Your task to perform on an android device: delete browsing data in the chrome app Image 0: 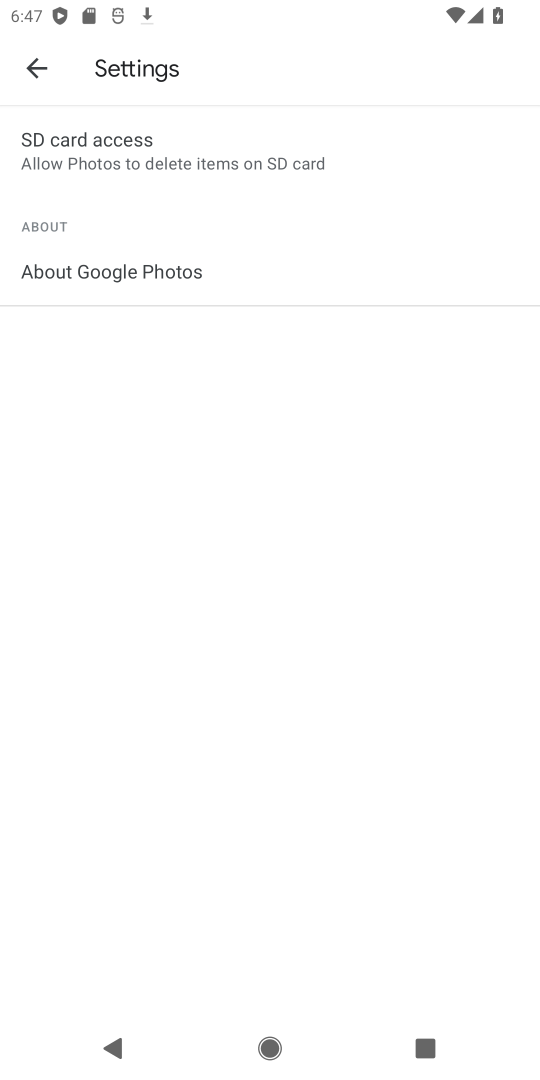
Step 0: press home button
Your task to perform on an android device: delete browsing data in the chrome app Image 1: 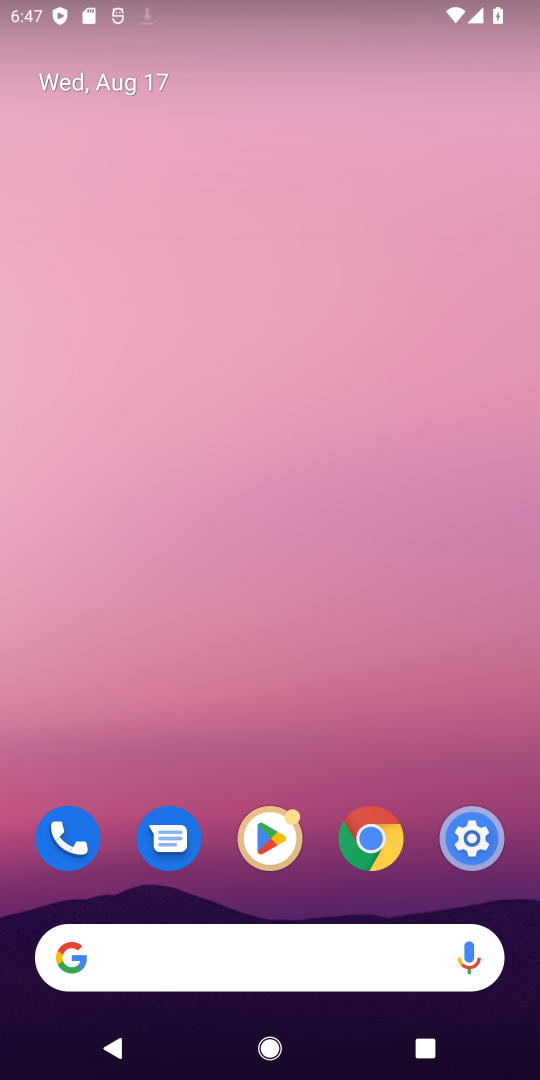
Step 1: drag from (380, 934) to (484, 249)
Your task to perform on an android device: delete browsing data in the chrome app Image 2: 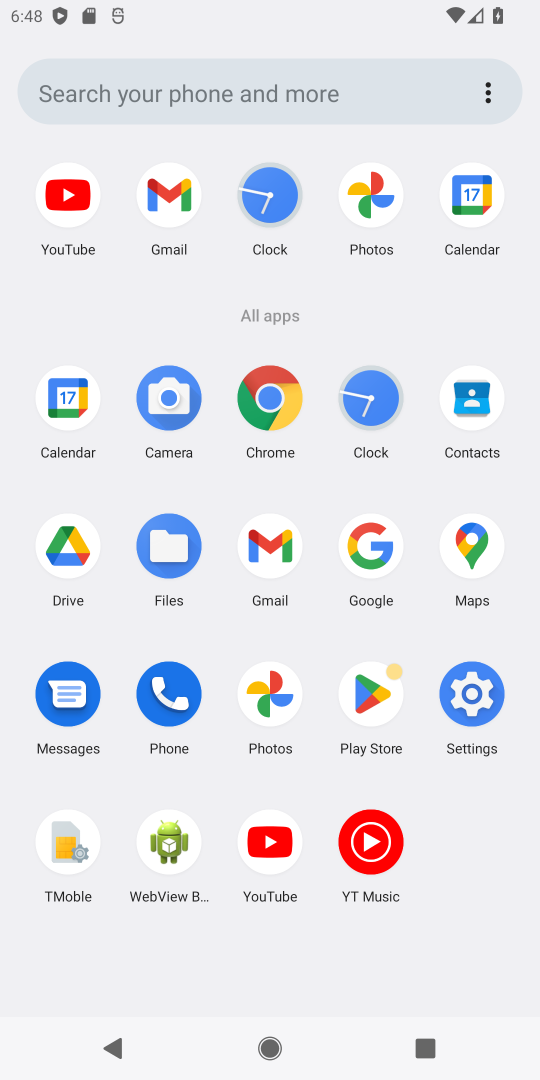
Step 2: click (269, 428)
Your task to perform on an android device: delete browsing data in the chrome app Image 3: 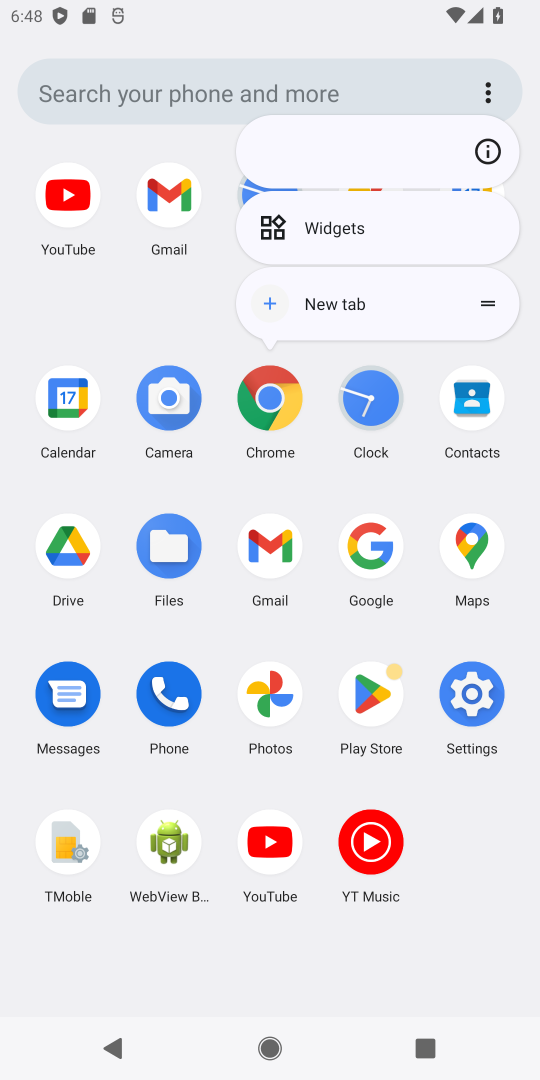
Step 3: click (284, 458)
Your task to perform on an android device: delete browsing data in the chrome app Image 4: 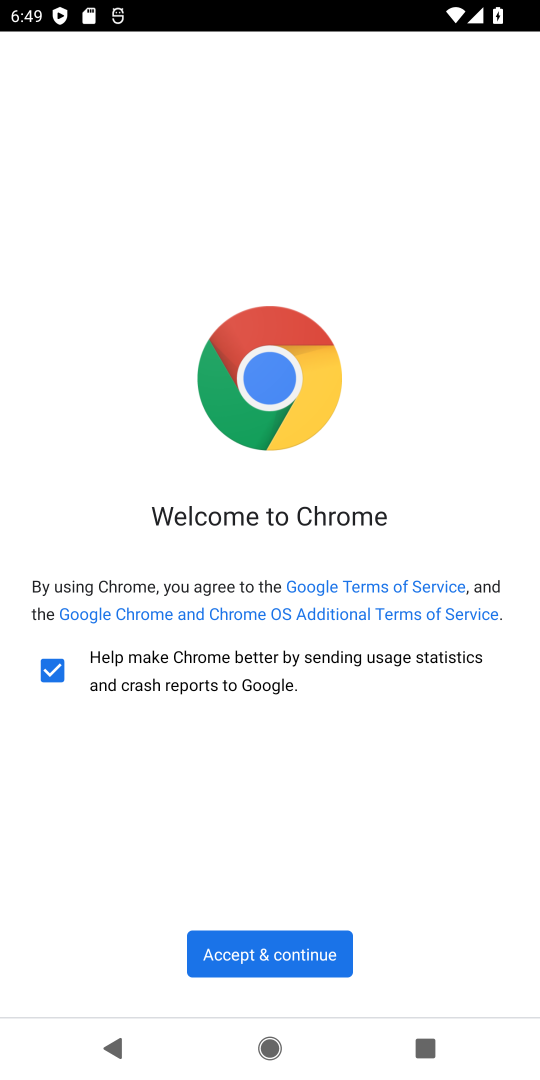
Step 4: click (228, 954)
Your task to perform on an android device: delete browsing data in the chrome app Image 5: 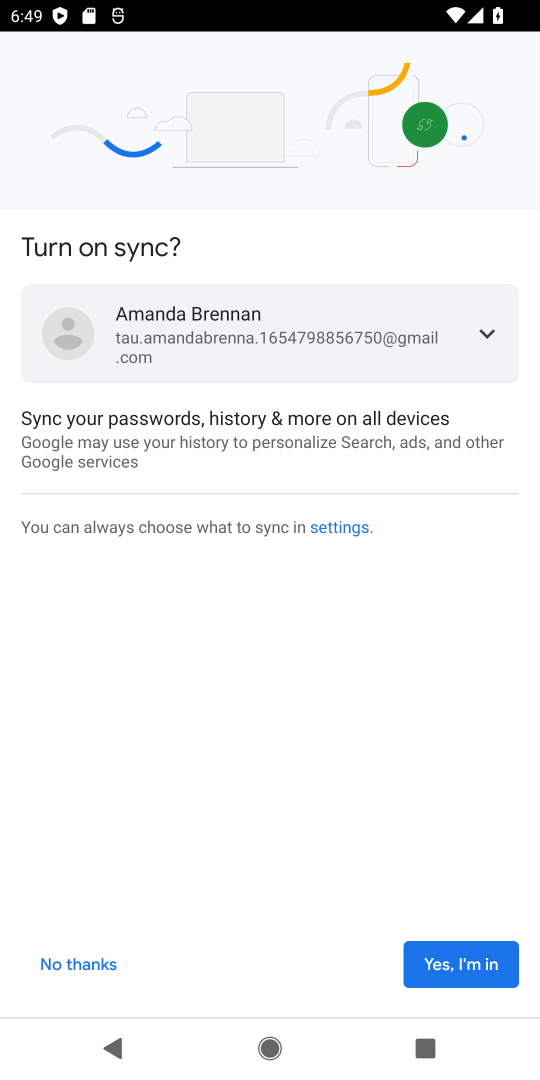
Step 5: click (459, 951)
Your task to perform on an android device: delete browsing data in the chrome app Image 6: 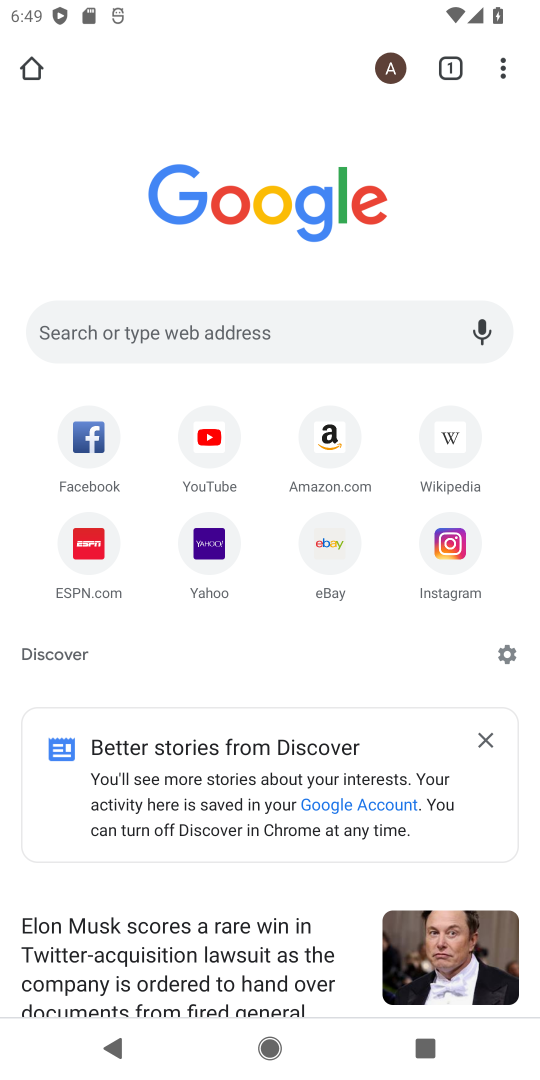
Step 6: click (506, 72)
Your task to perform on an android device: delete browsing data in the chrome app Image 7: 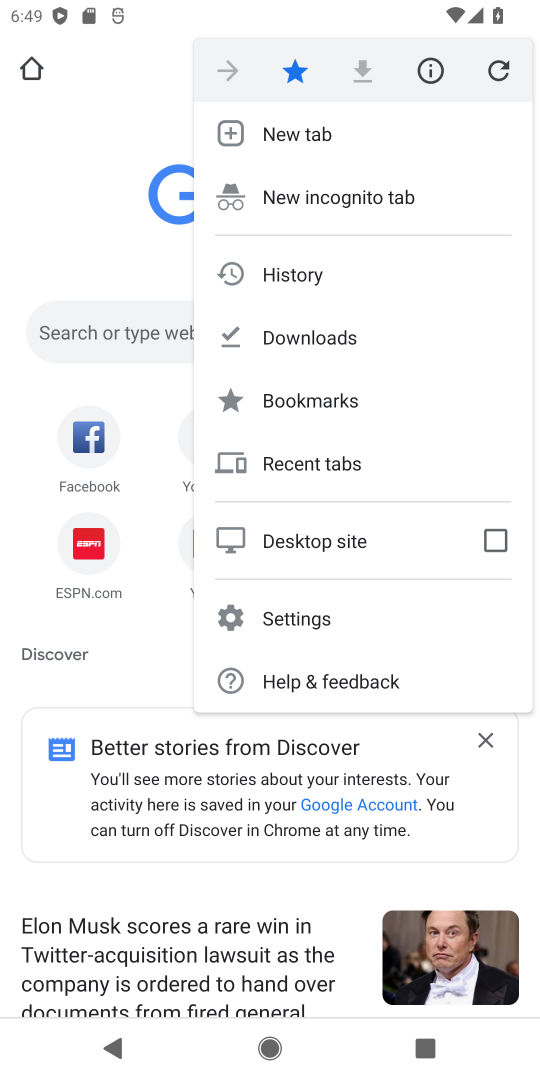
Step 7: click (317, 277)
Your task to perform on an android device: delete browsing data in the chrome app Image 8: 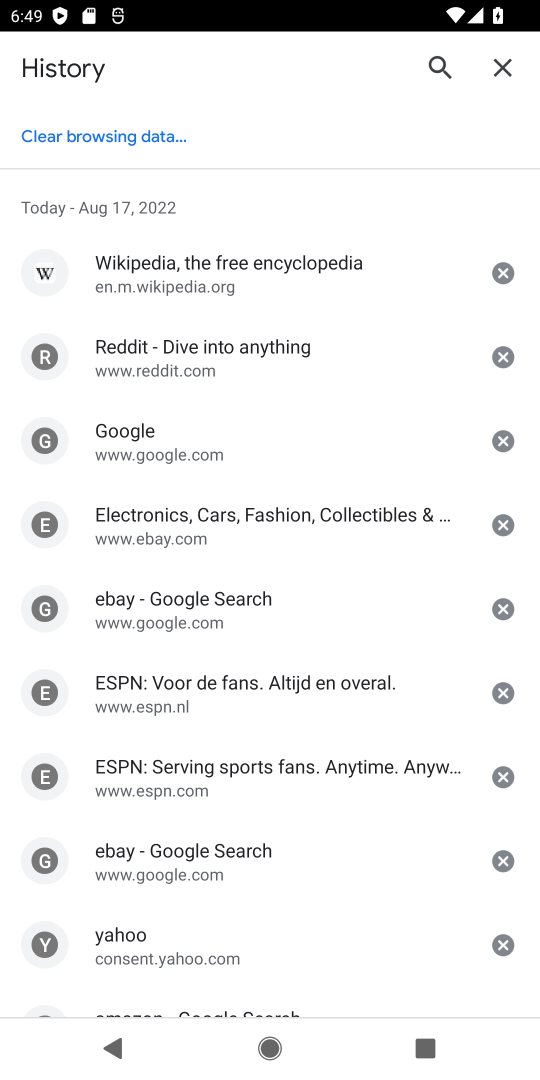
Step 8: click (141, 147)
Your task to perform on an android device: delete browsing data in the chrome app Image 9: 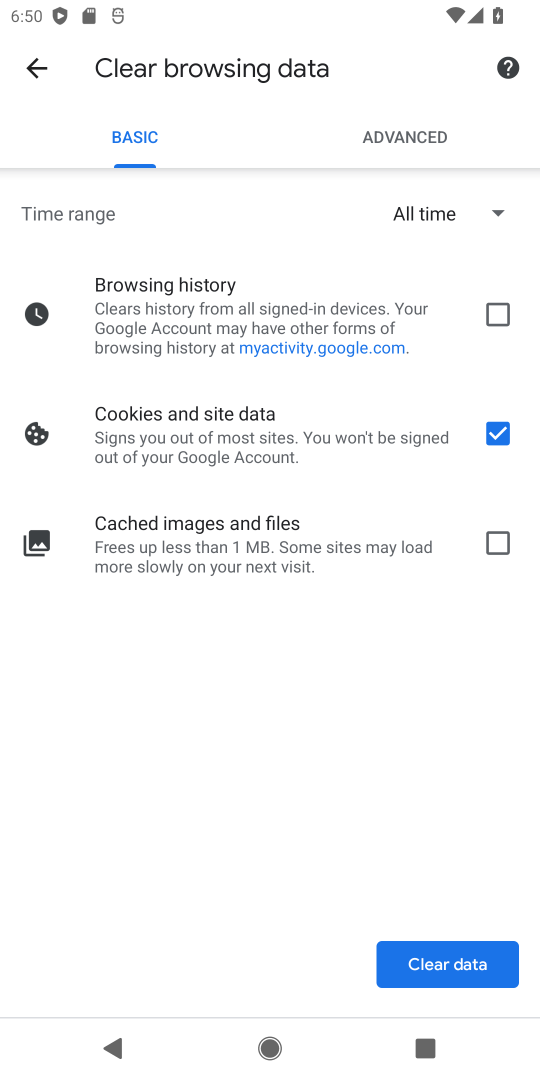
Step 9: click (496, 318)
Your task to perform on an android device: delete browsing data in the chrome app Image 10: 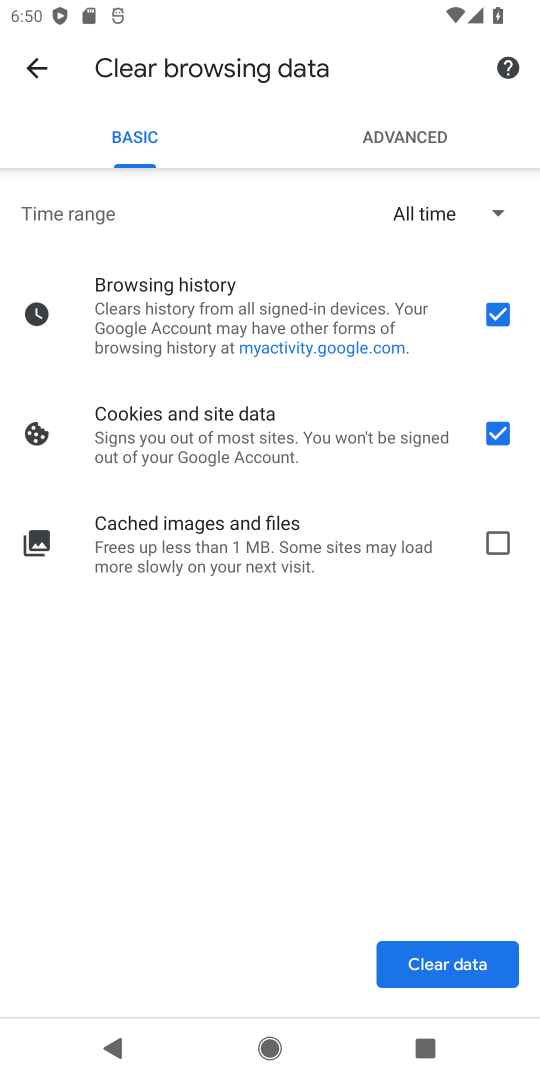
Step 10: click (505, 430)
Your task to perform on an android device: delete browsing data in the chrome app Image 11: 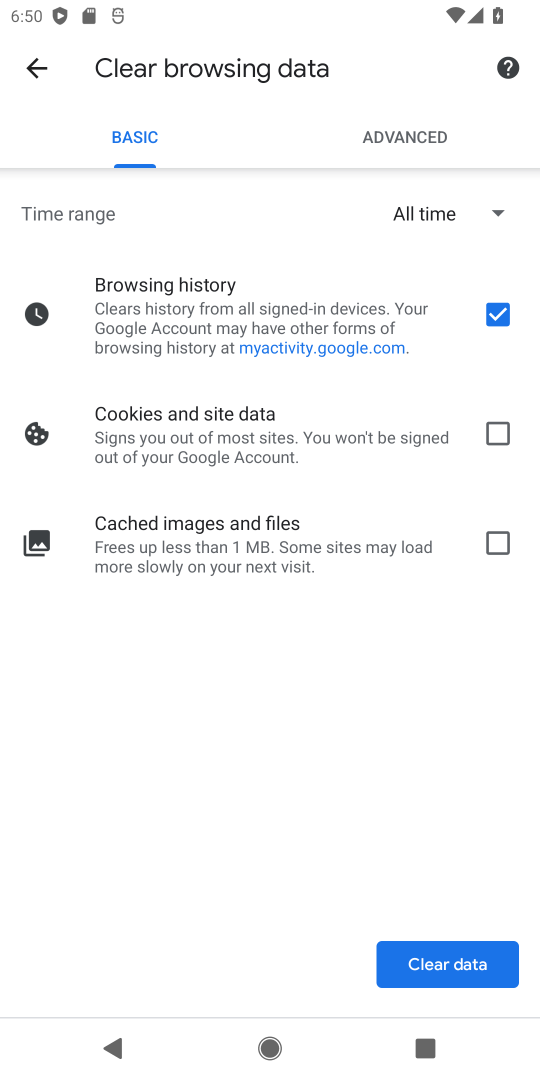
Step 11: click (465, 964)
Your task to perform on an android device: delete browsing data in the chrome app Image 12: 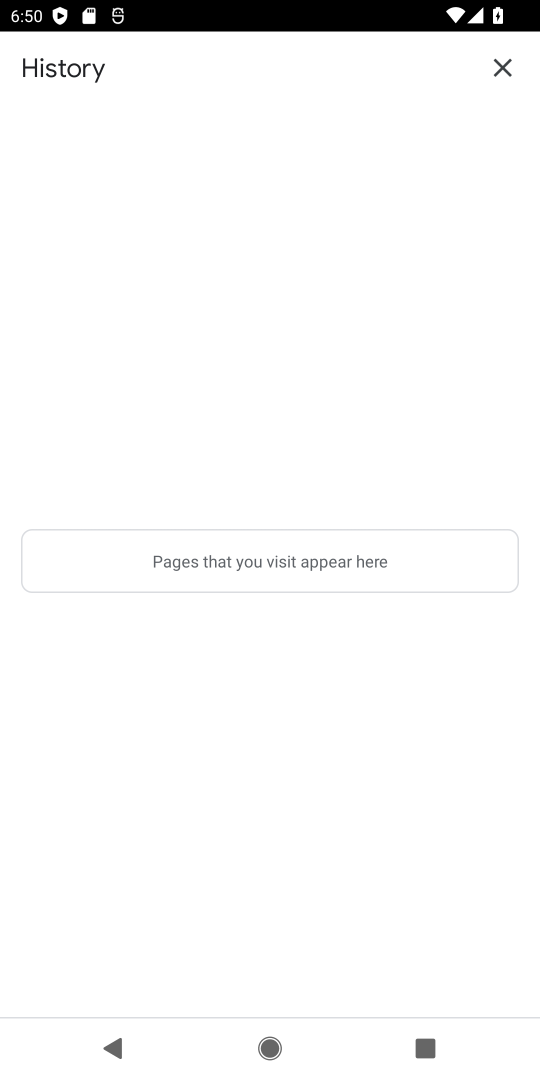
Step 12: task complete